Your task to perform on an android device: Go to sound settings Image 0: 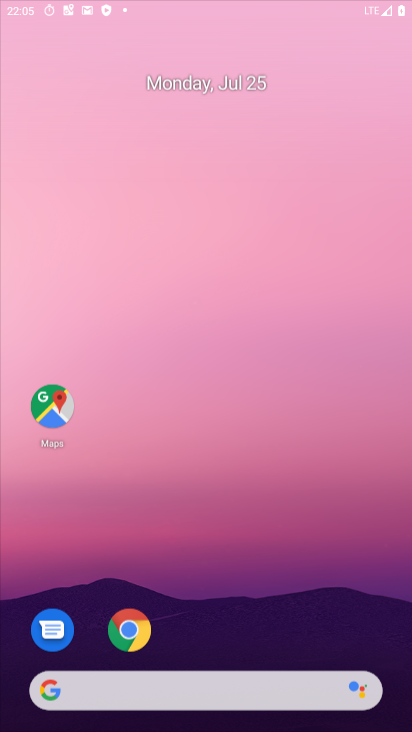
Step 0: press home button
Your task to perform on an android device: Go to sound settings Image 1: 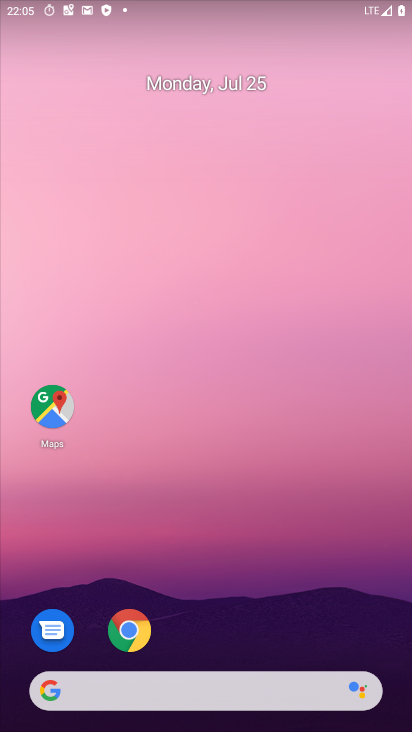
Step 1: drag from (247, 546) to (210, 84)
Your task to perform on an android device: Go to sound settings Image 2: 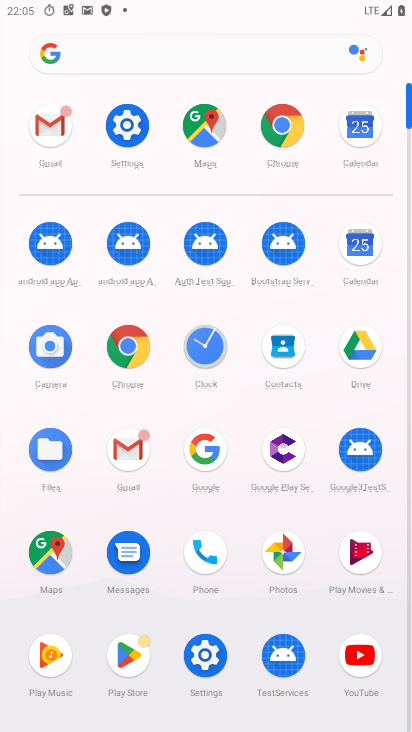
Step 2: click (129, 129)
Your task to perform on an android device: Go to sound settings Image 3: 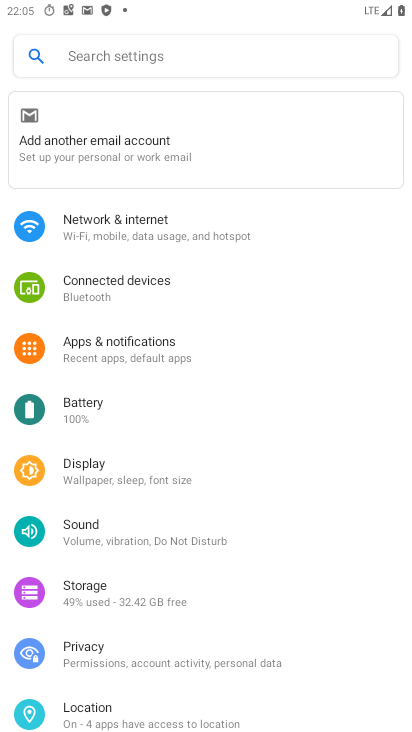
Step 3: click (85, 532)
Your task to perform on an android device: Go to sound settings Image 4: 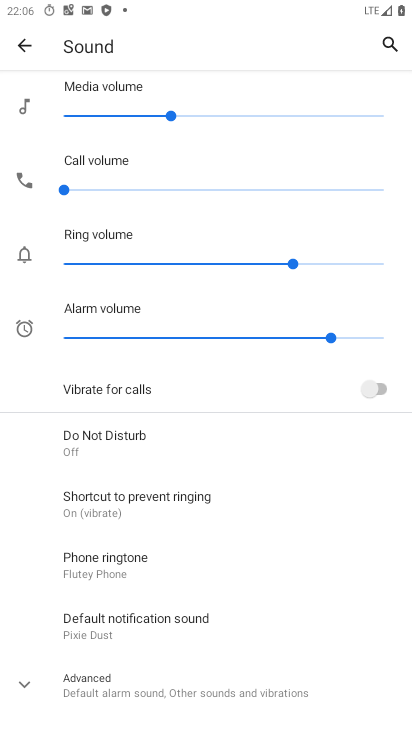
Step 4: task complete